Your task to perform on an android device: Open internet settings Image 0: 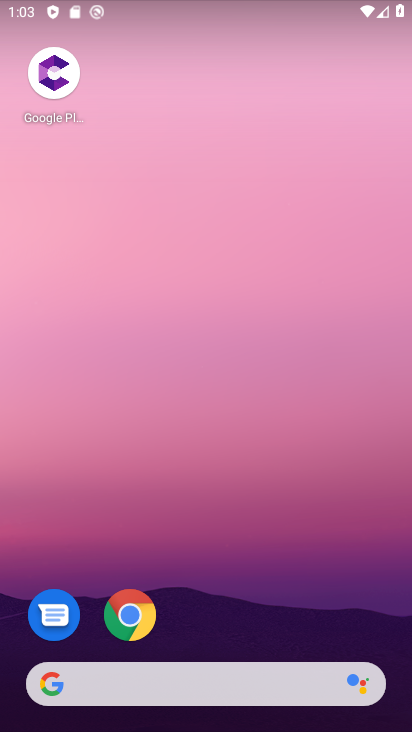
Step 0: drag from (205, 528) to (268, 48)
Your task to perform on an android device: Open internet settings Image 1: 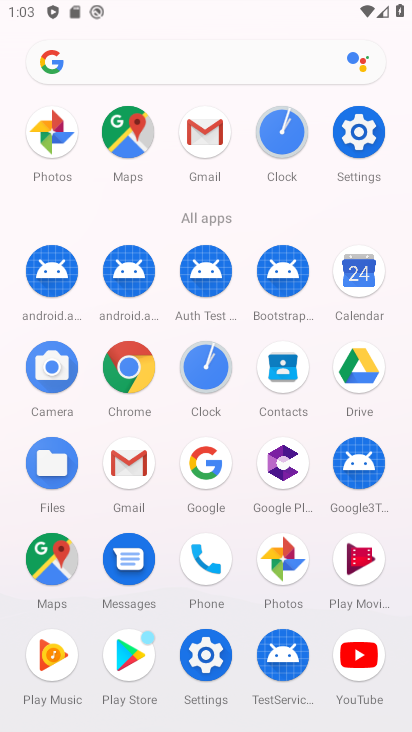
Step 1: click (355, 135)
Your task to perform on an android device: Open internet settings Image 2: 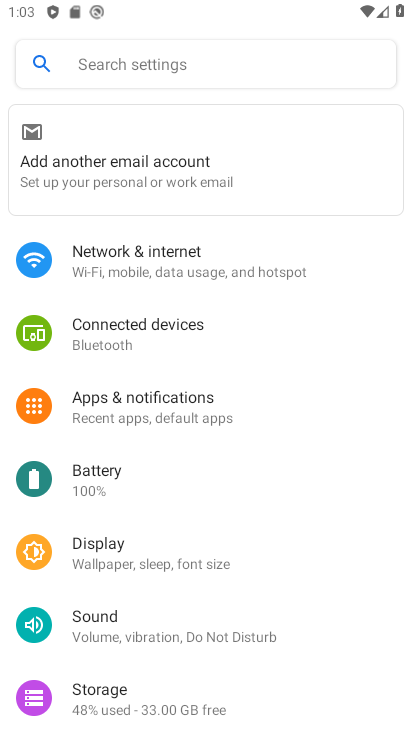
Step 2: click (164, 265)
Your task to perform on an android device: Open internet settings Image 3: 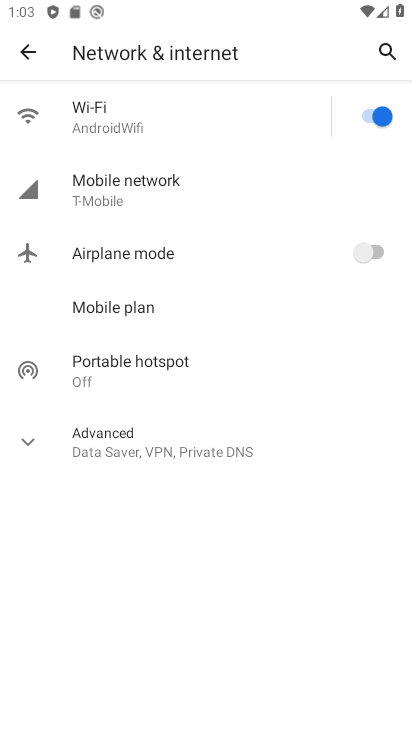
Step 3: task complete